Your task to perform on an android device: Find coffee shops on Maps Image 0: 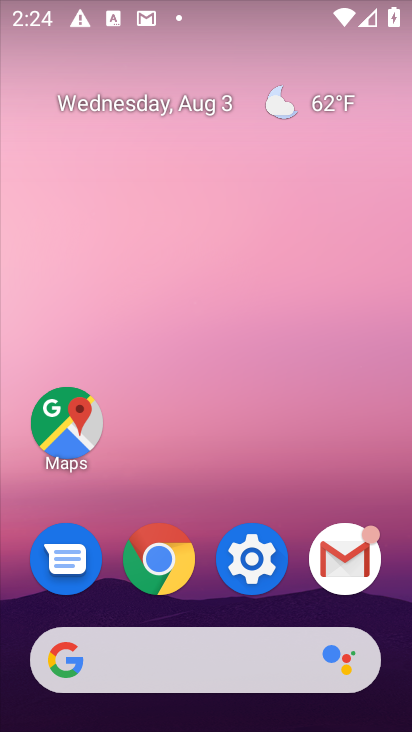
Step 0: click (36, 397)
Your task to perform on an android device: Find coffee shops on Maps Image 1: 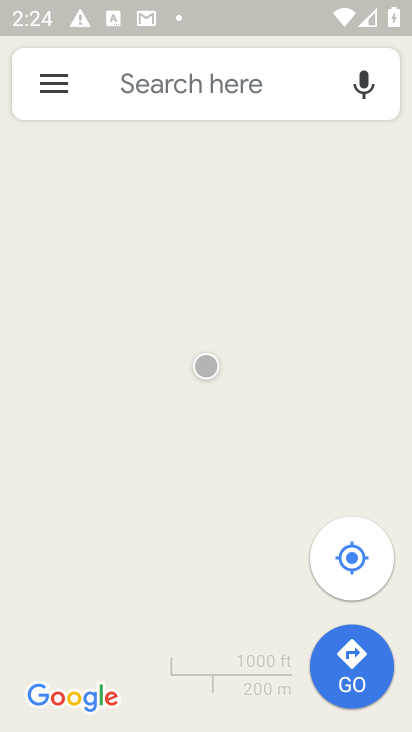
Step 1: click (34, 78)
Your task to perform on an android device: Find coffee shops on Maps Image 2: 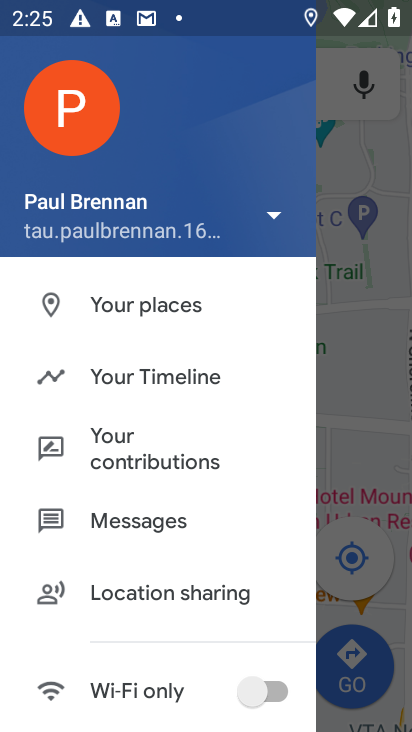
Step 2: click (369, 336)
Your task to perform on an android device: Find coffee shops on Maps Image 3: 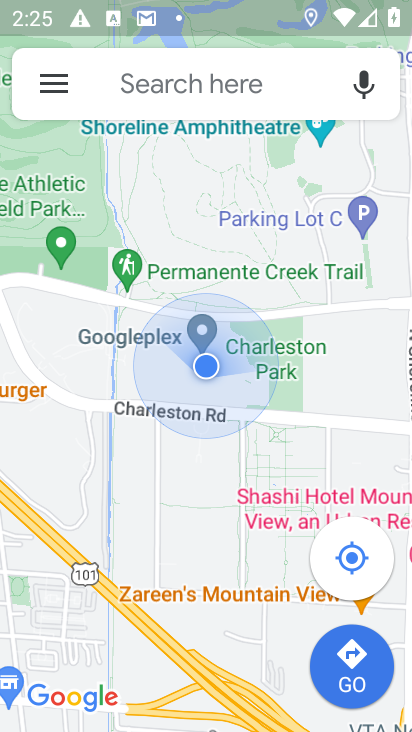
Step 3: click (214, 77)
Your task to perform on an android device: Find coffee shops on Maps Image 4: 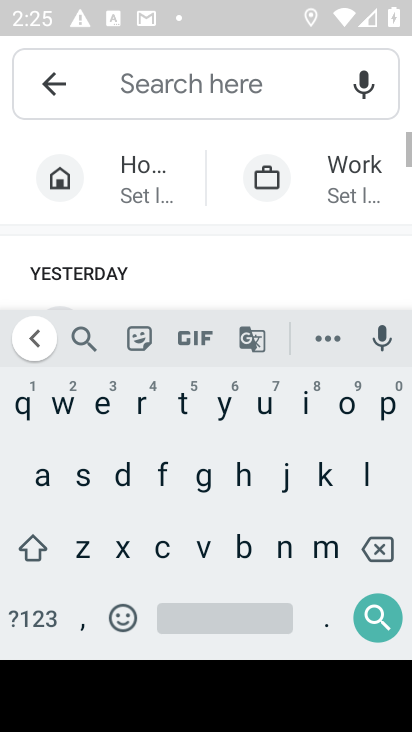
Step 4: drag from (137, 265) to (143, 195)
Your task to perform on an android device: Find coffee shops on Maps Image 5: 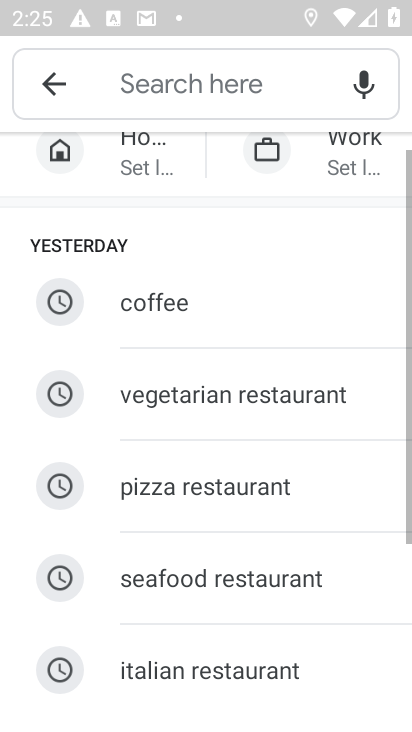
Step 5: click (156, 316)
Your task to perform on an android device: Find coffee shops on Maps Image 6: 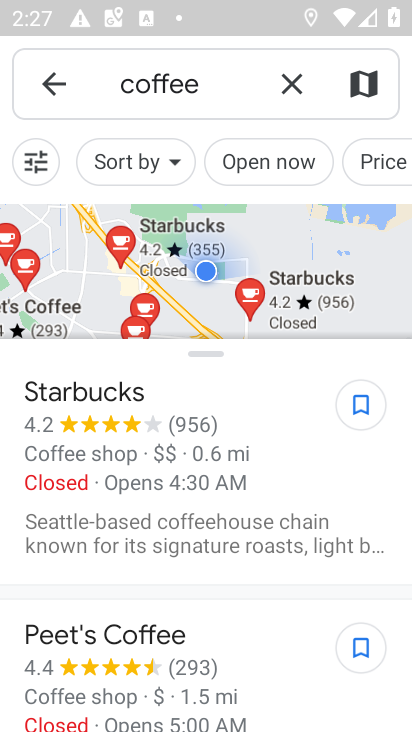
Step 6: task complete